Your task to perform on an android device: Go to network settings Image 0: 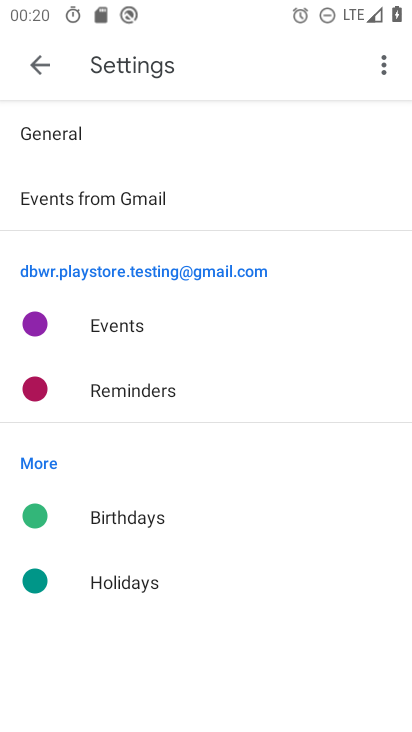
Step 0: press home button
Your task to perform on an android device: Go to network settings Image 1: 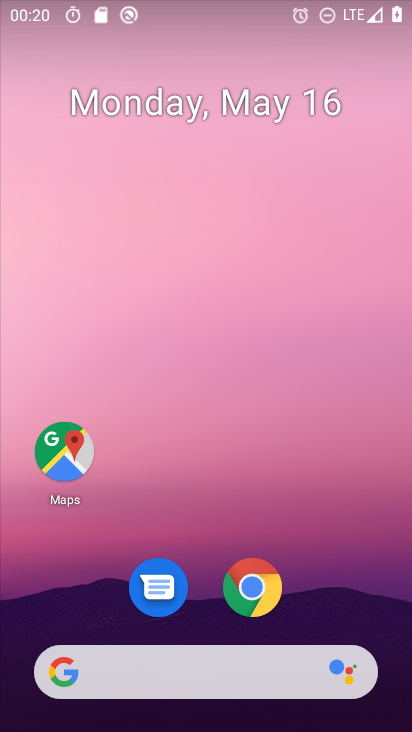
Step 1: drag from (198, 641) to (200, 320)
Your task to perform on an android device: Go to network settings Image 2: 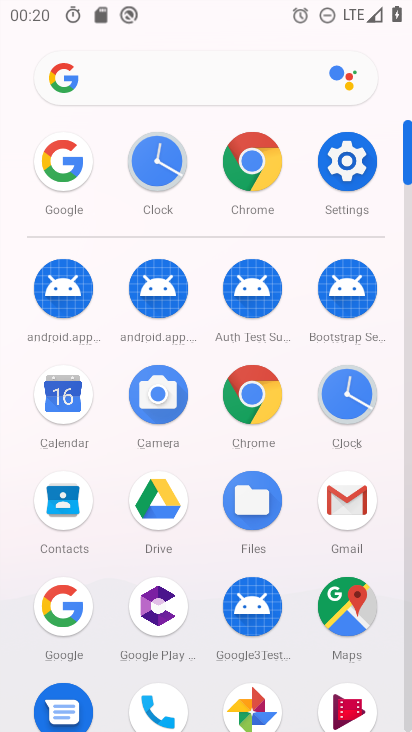
Step 2: click (349, 169)
Your task to perform on an android device: Go to network settings Image 3: 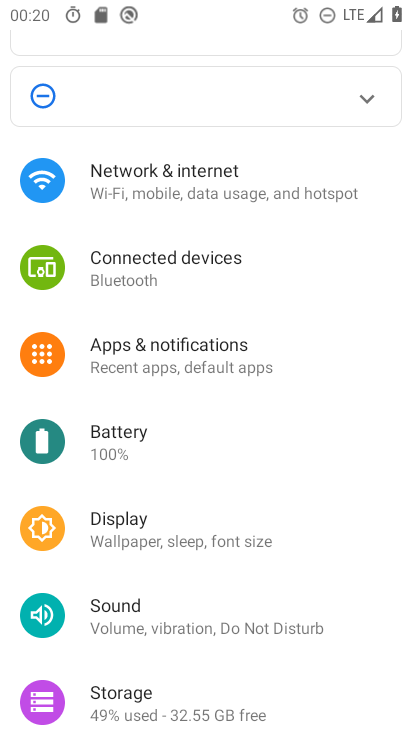
Step 3: click (185, 200)
Your task to perform on an android device: Go to network settings Image 4: 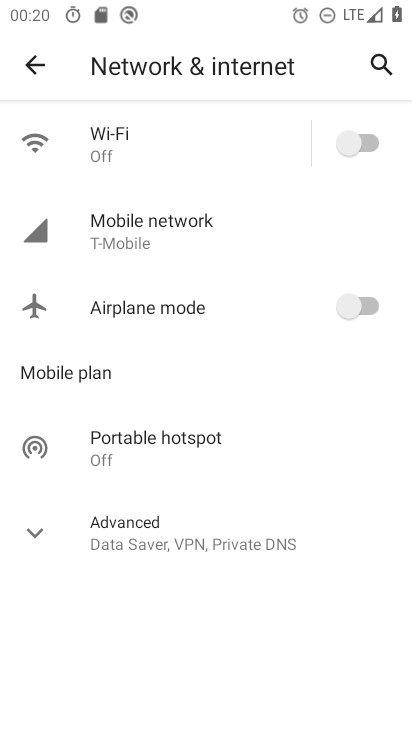
Step 4: click (199, 251)
Your task to perform on an android device: Go to network settings Image 5: 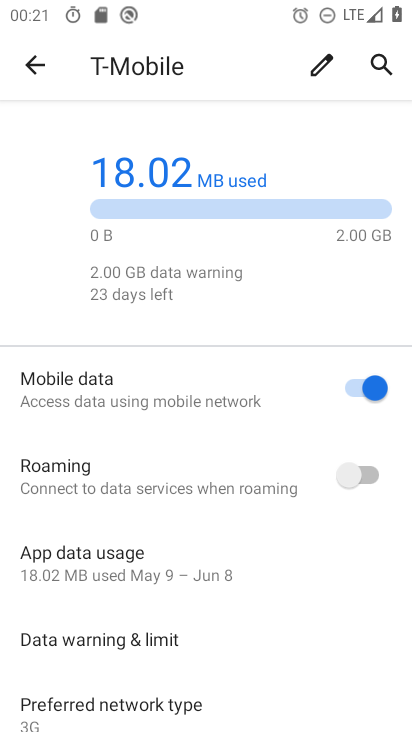
Step 5: drag from (155, 630) to (205, 413)
Your task to perform on an android device: Go to network settings Image 6: 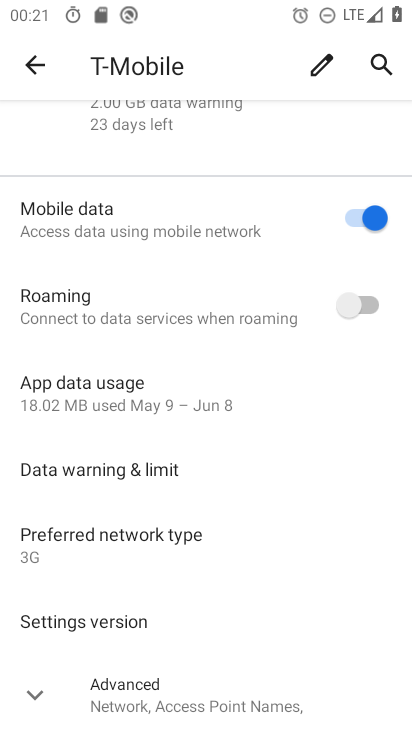
Step 6: drag from (240, 686) to (244, 426)
Your task to perform on an android device: Go to network settings Image 7: 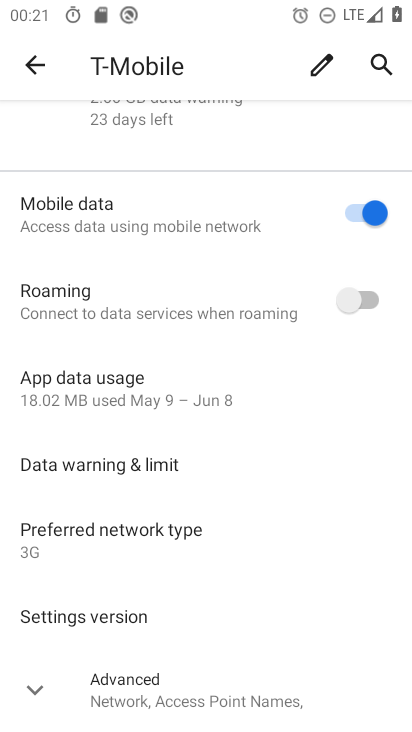
Step 7: drag from (214, 596) to (228, 401)
Your task to perform on an android device: Go to network settings Image 8: 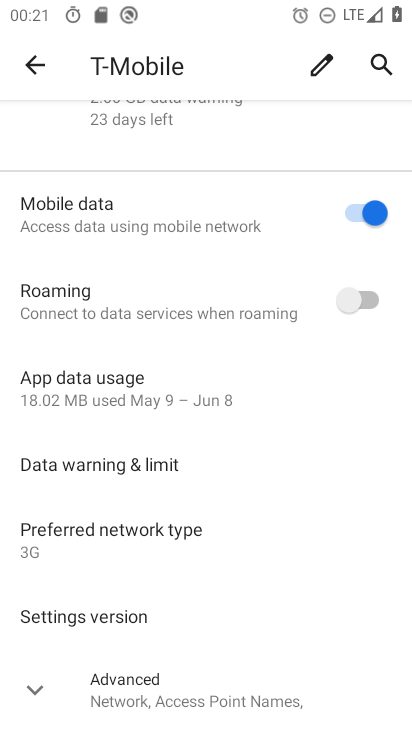
Step 8: drag from (228, 629) to (244, 387)
Your task to perform on an android device: Go to network settings Image 9: 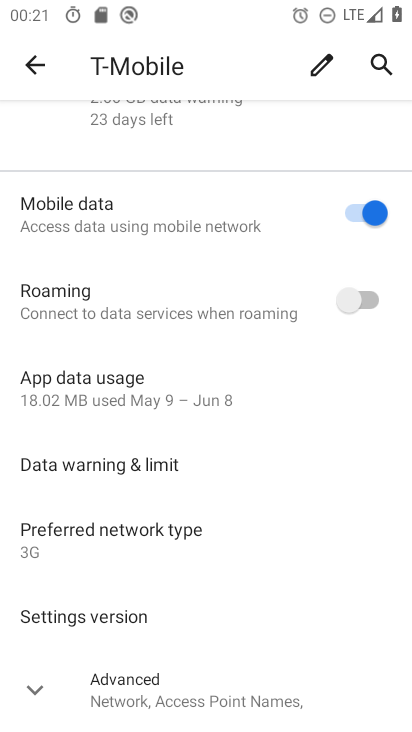
Step 9: drag from (218, 646) to (224, 434)
Your task to perform on an android device: Go to network settings Image 10: 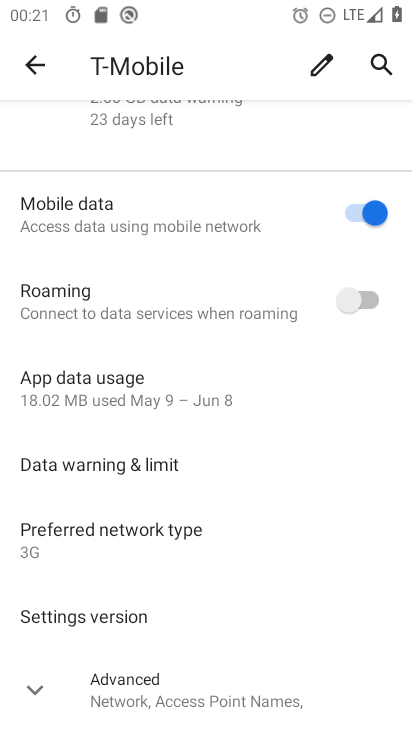
Step 10: drag from (231, 381) to (237, 605)
Your task to perform on an android device: Go to network settings Image 11: 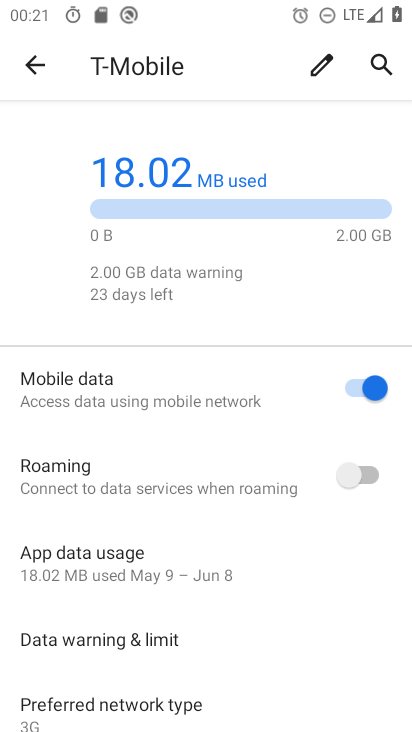
Step 11: drag from (192, 426) to (221, 615)
Your task to perform on an android device: Go to network settings Image 12: 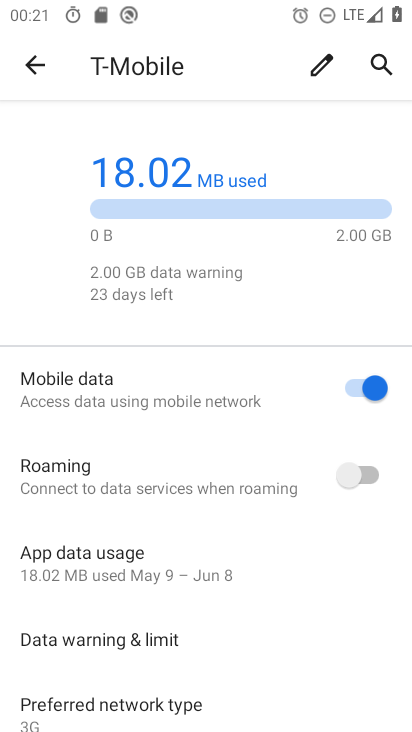
Step 12: drag from (283, 646) to (256, 416)
Your task to perform on an android device: Go to network settings Image 13: 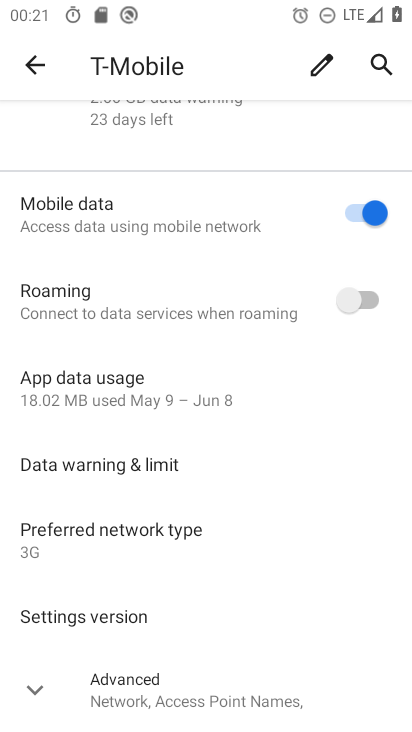
Step 13: drag from (233, 581) to (237, 406)
Your task to perform on an android device: Go to network settings Image 14: 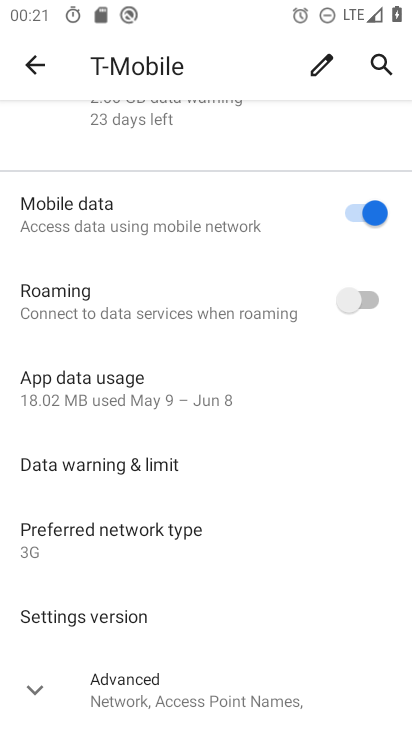
Step 14: drag from (128, 341) to (148, 554)
Your task to perform on an android device: Go to network settings Image 15: 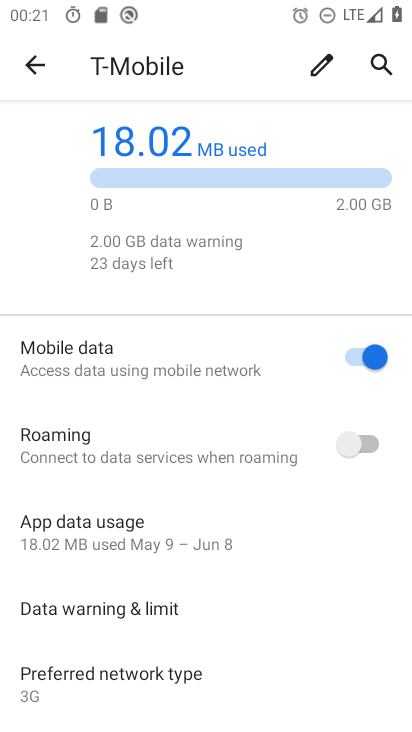
Step 15: drag from (89, 629) to (118, 330)
Your task to perform on an android device: Go to network settings Image 16: 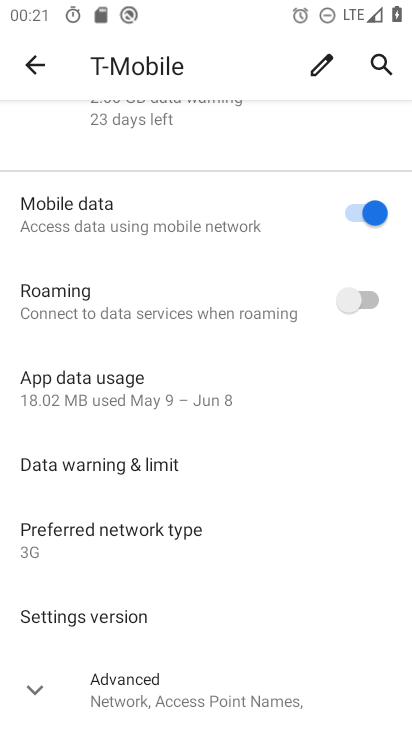
Step 16: drag from (129, 606) to (162, 434)
Your task to perform on an android device: Go to network settings Image 17: 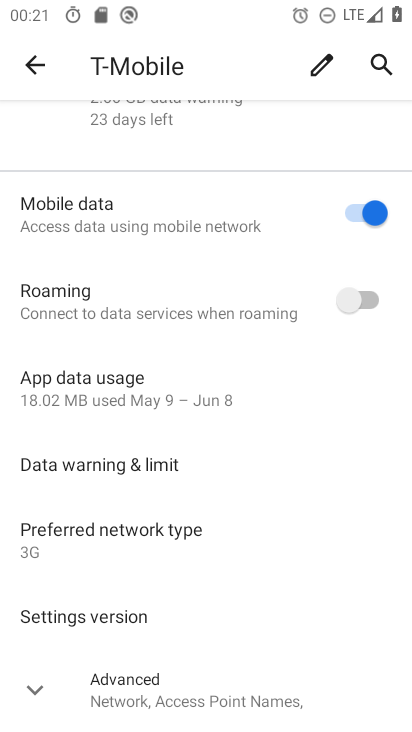
Step 17: click (128, 688)
Your task to perform on an android device: Go to network settings Image 18: 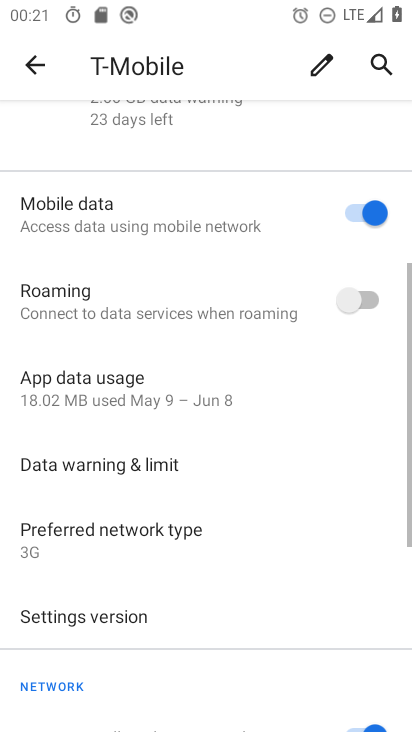
Step 18: task complete